Your task to perform on an android device: turn notification dots on Image 0: 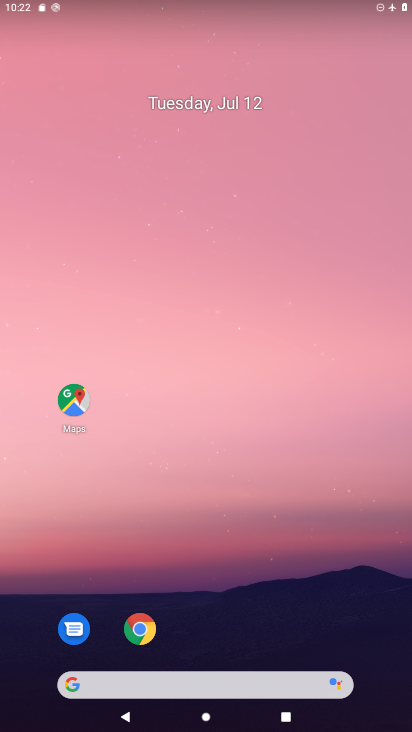
Step 0: drag from (283, 673) to (281, 9)
Your task to perform on an android device: turn notification dots on Image 1: 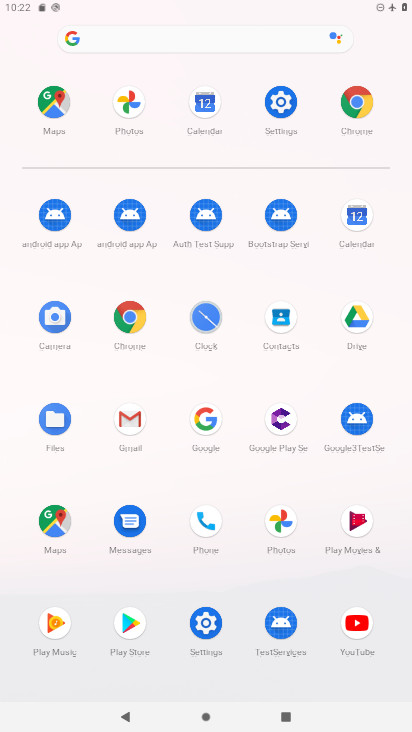
Step 1: click (261, 110)
Your task to perform on an android device: turn notification dots on Image 2: 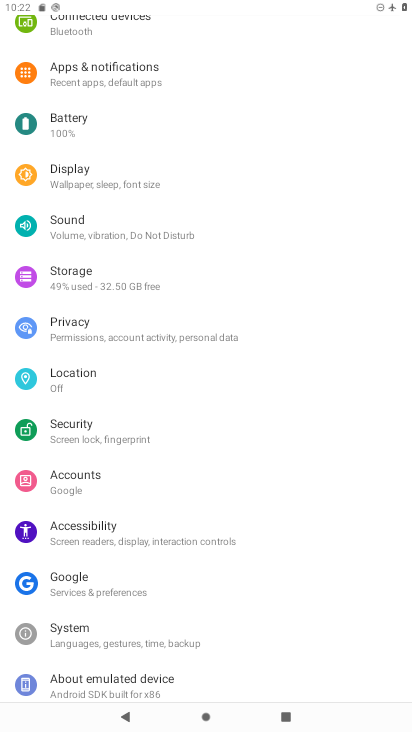
Step 2: click (114, 82)
Your task to perform on an android device: turn notification dots on Image 3: 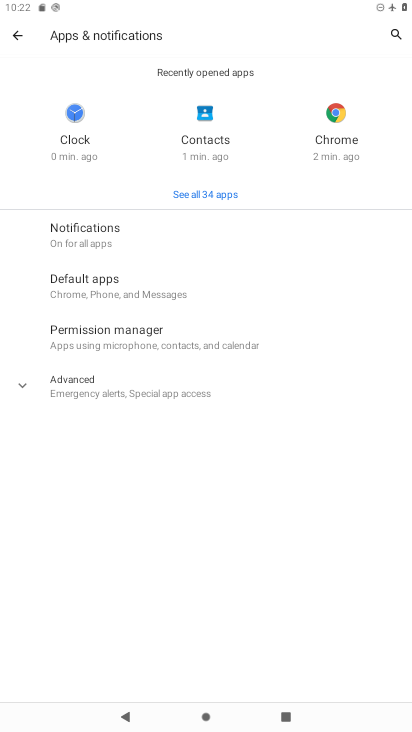
Step 3: click (105, 226)
Your task to perform on an android device: turn notification dots on Image 4: 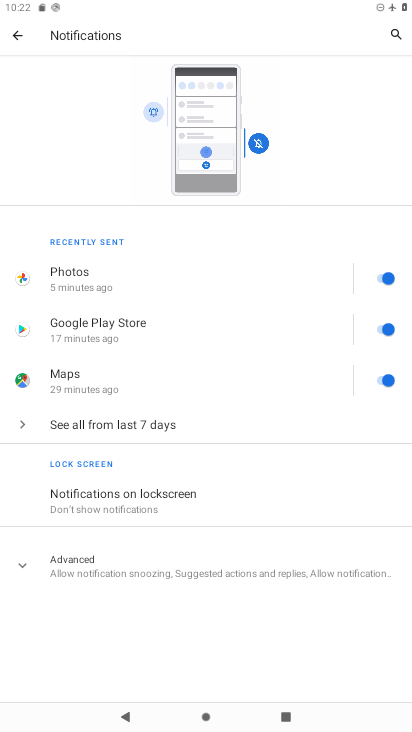
Step 4: click (124, 568)
Your task to perform on an android device: turn notification dots on Image 5: 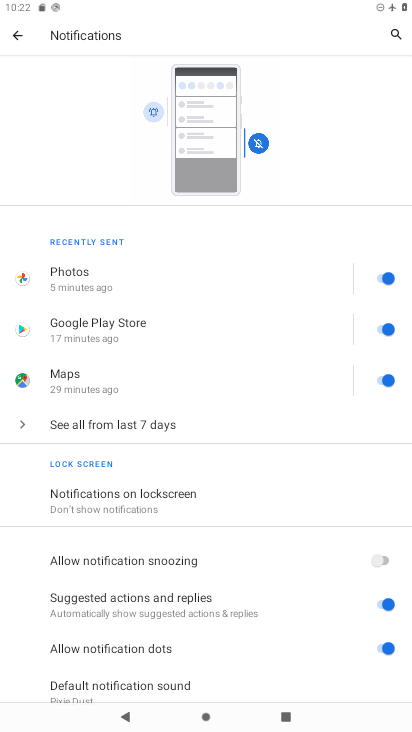
Step 5: task complete